Your task to perform on an android device: turn off notifications settings in the gmail app Image 0: 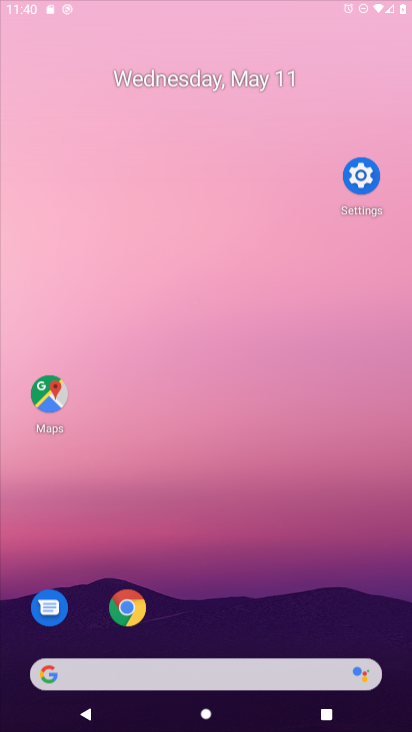
Step 0: drag from (160, 123) to (131, 2)
Your task to perform on an android device: turn off notifications settings in the gmail app Image 1: 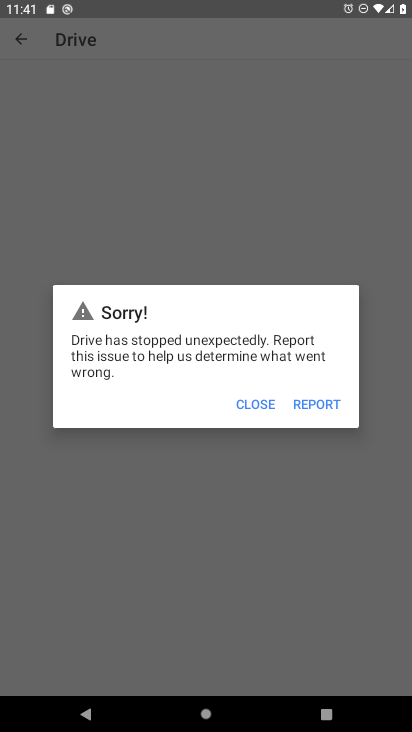
Step 1: click (262, 410)
Your task to perform on an android device: turn off notifications settings in the gmail app Image 2: 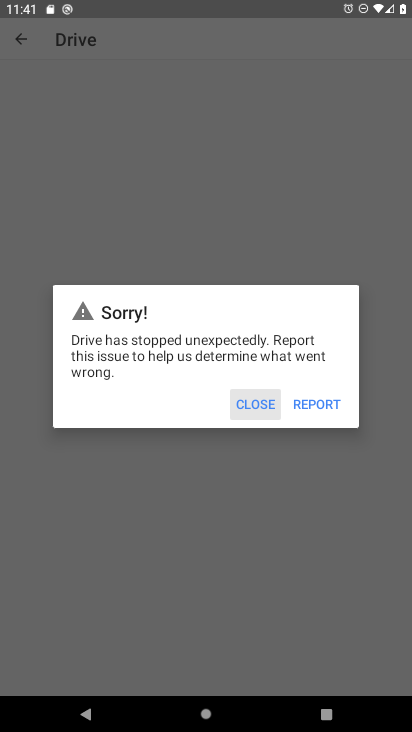
Step 2: click (261, 409)
Your task to perform on an android device: turn off notifications settings in the gmail app Image 3: 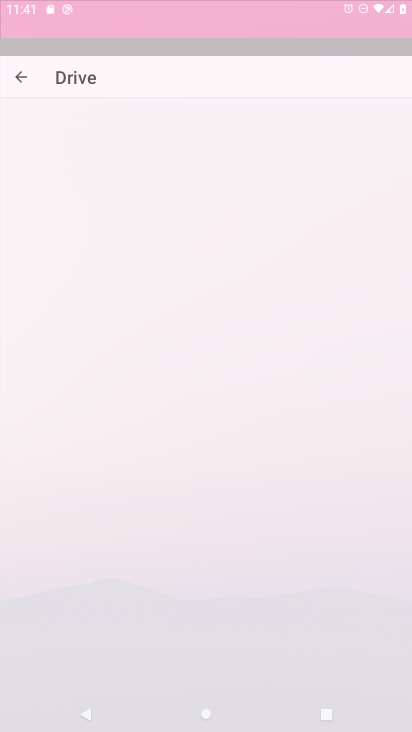
Step 3: click (257, 407)
Your task to perform on an android device: turn off notifications settings in the gmail app Image 4: 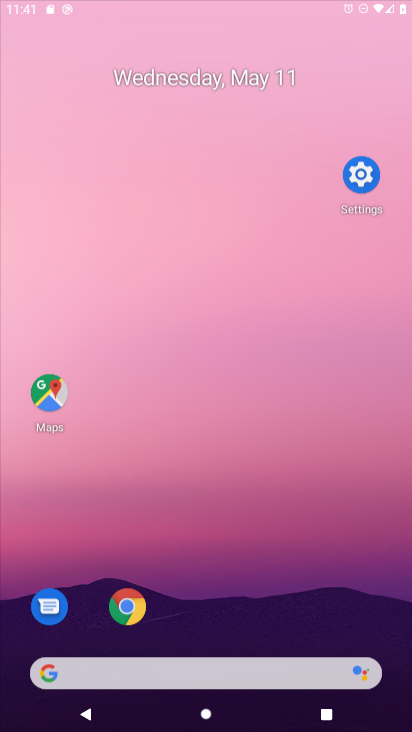
Step 4: click (257, 407)
Your task to perform on an android device: turn off notifications settings in the gmail app Image 5: 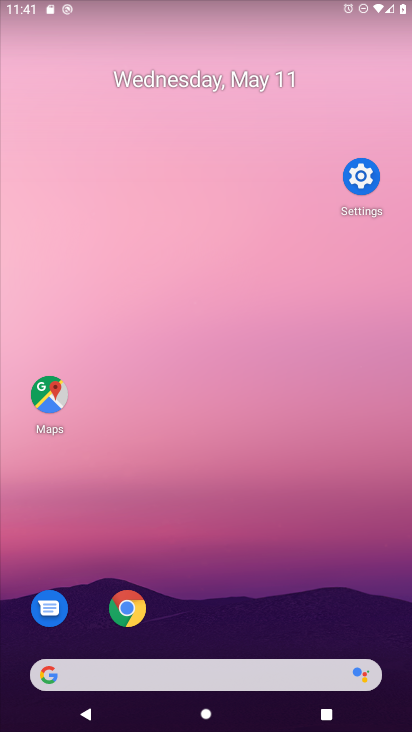
Step 5: drag from (326, 580) to (48, 24)
Your task to perform on an android device: turn off notifications settings in the gmail app Image 6: 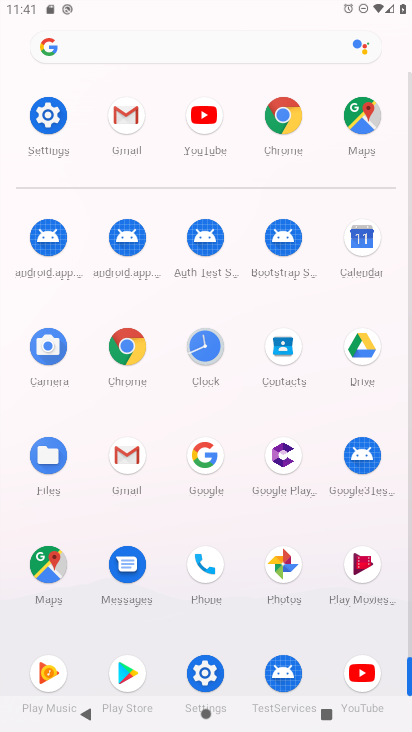
Step 6: click (124, 452)
Your task to perform on an android device: turn off notifications settings in the gmail app Image 7: 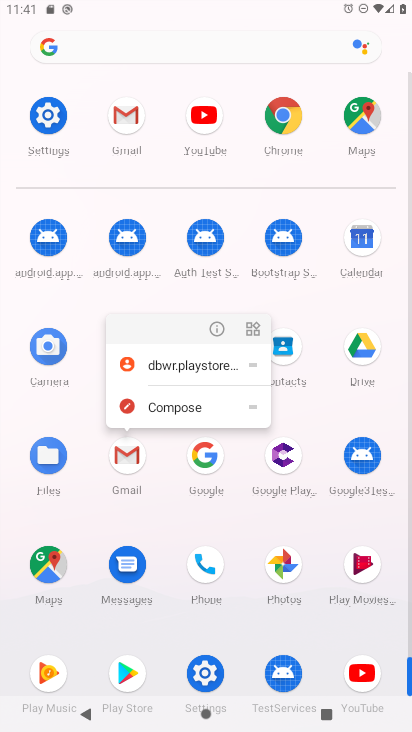
Step 7: click (124, 451)
Your task to perform on an android device: turn off notifications settings in the gmail app Image 8: 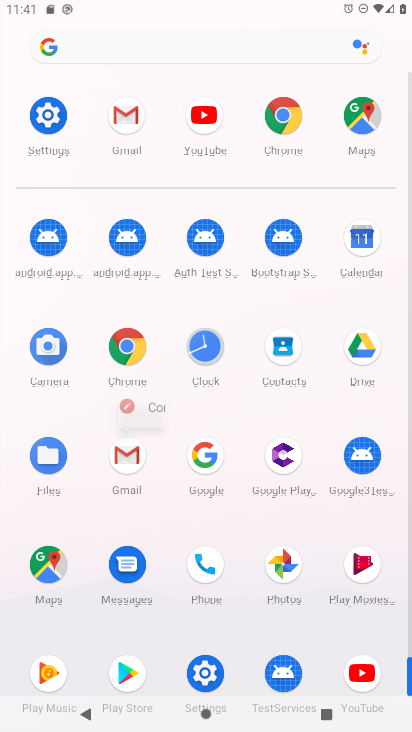
Step 8: click (121, 449)
Your task to perform on an android device: turn off notifications settings in the gmail app Image 9: 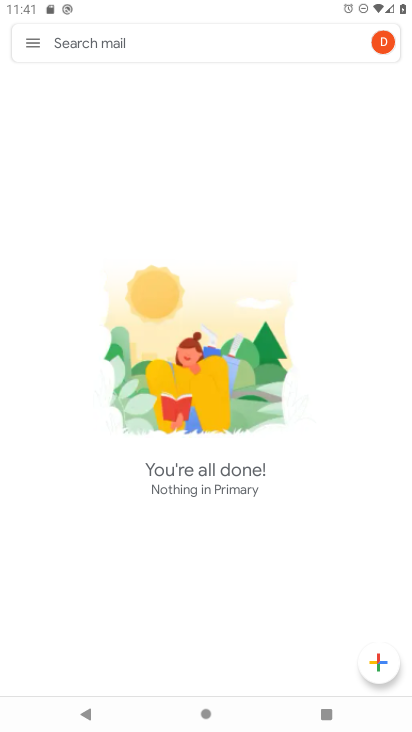
Step 9: click (32, 43)
Your task to perform on an android device: turn off notifications settings in the gmail app Image 10: 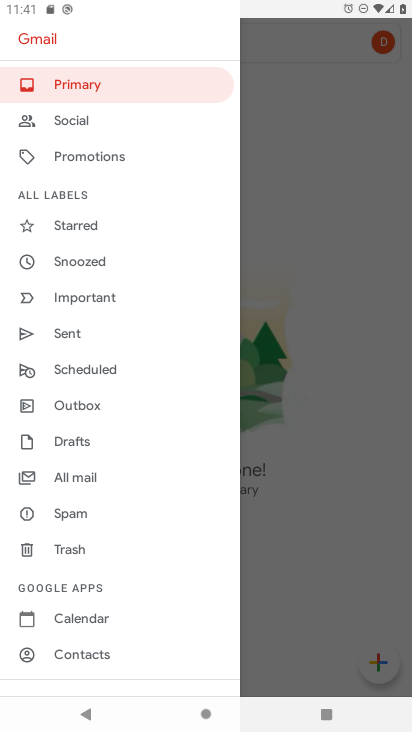
Step 10: drag from (115, 605) to (0, 239)
Your task to perform on an android device: turn off notifications settings in the gmail app Image 11: 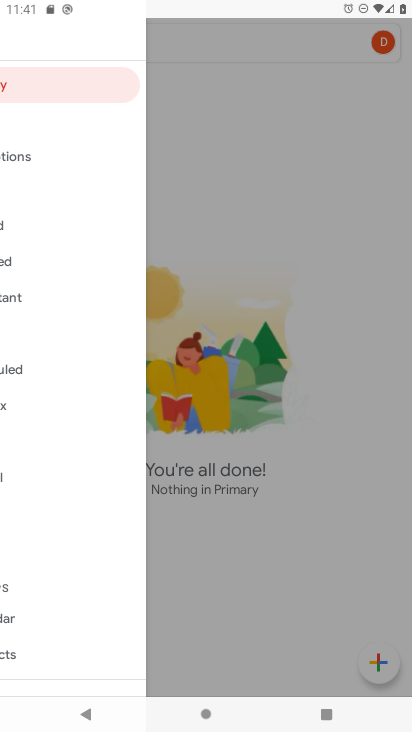
Step 11: drag from (97, 505) to (79, 149)
Your task to perform on an android device: turn off notifications settings in the gmail app Image 12: 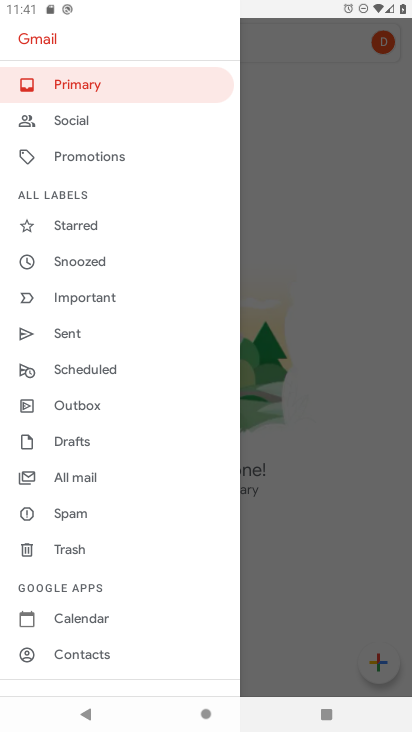
Step 12: drag from (50, 595) to (53, 231)
Your task to perform on an android device: turn off notifications settings in the gmail app Image 13: 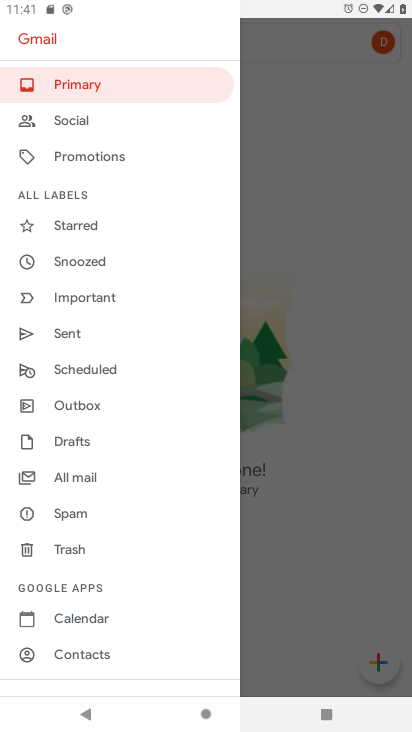
Step 13: drag from (97, 542) to (88, 199)
Your task to perform on an android device: turn off notifications settings in the gmail app Image 14: 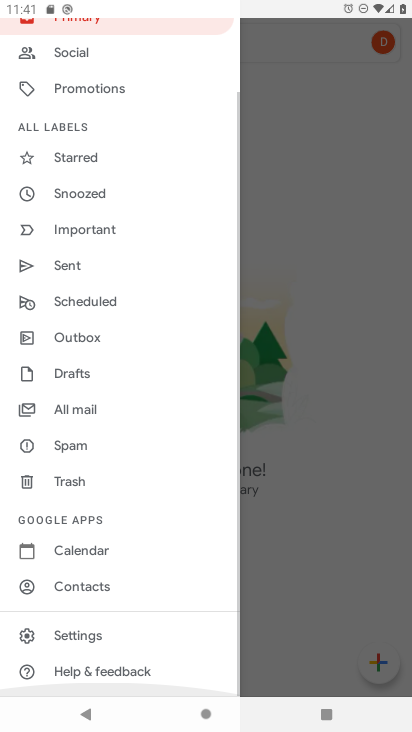
Step 14: drag from (77, 556) to (23, 228)
Your task to perform on an android device: turn off notifications settings in the gmail app Image 15: 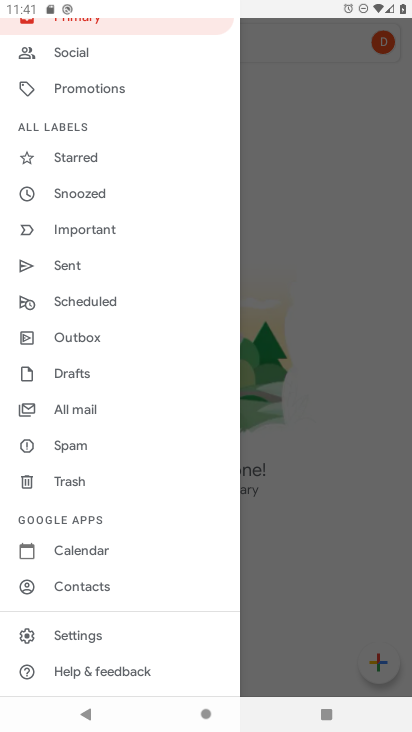
Step 15: click (75, 643)
Your task to perform on an android device: turn off notifications settings in the gmail app Image 16: 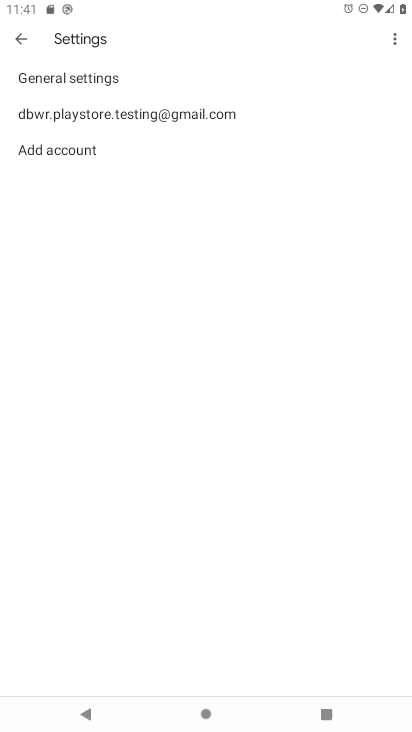
Step 16: click (94, 100)
Your task to perform on an android device: turn off notifications settings in the gmail app Image 17: 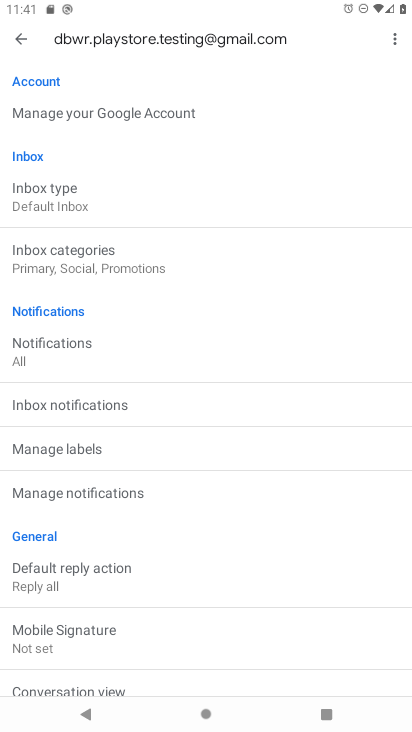
Step 17: click (51, 334)
Your task to perform on an android device: turn off notifications settings in the gmail app Image 18: 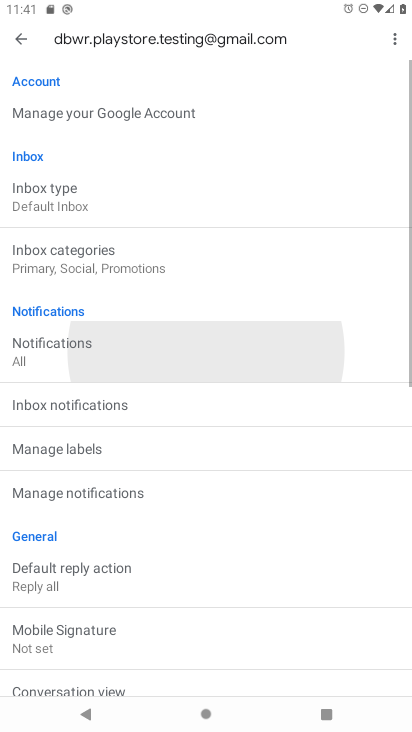
Step 18: click (49, 335)
Your task to perform on an android device: turn off notifications settings in the gmail app Image 19: 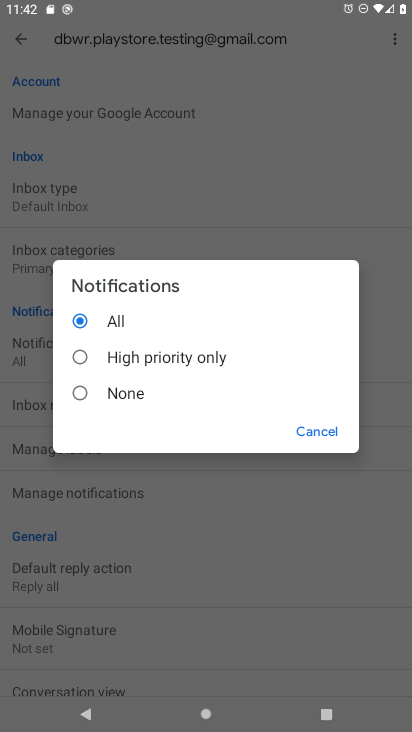
Step 19: click (81, 392)
Your task to perform on an android device: turn off notifications settings in the gmail app Image 20: 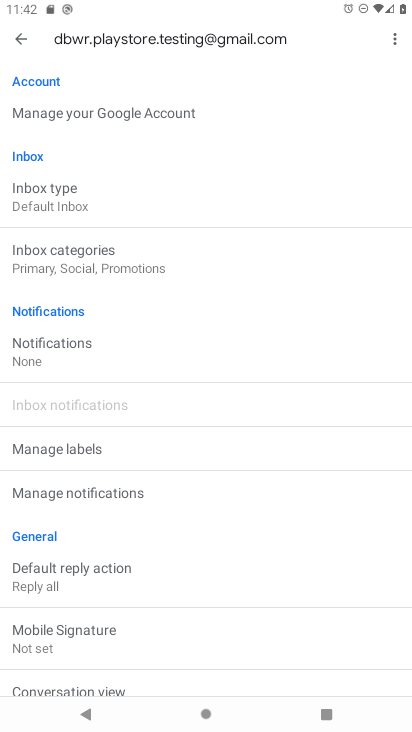
Step 20: click (53, 369)
Your task to perform on an android device: turn off notifications settings in the gmail app Image 21: 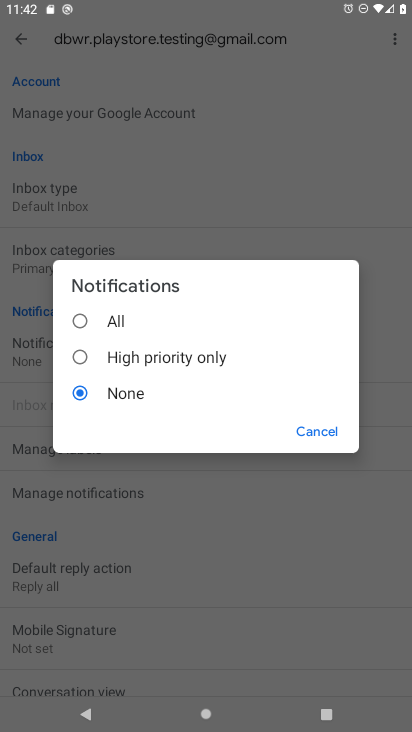
Step 21: click (73, 391)
Your task to perform on an android device: turn off notifications settings in the gmail app Image 22: 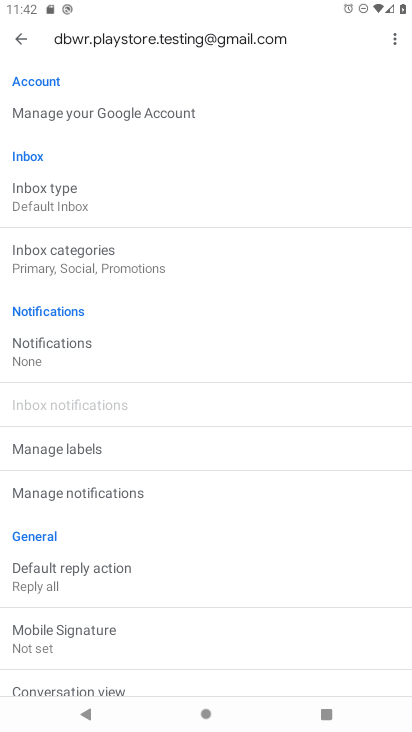
Step 22: task complete